Your task to perform on an android device: open chrome privacy settings Image 0: 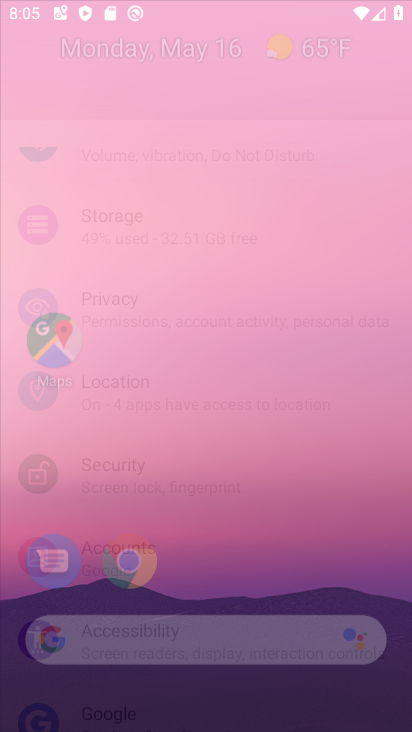
Step 0: click (329, 150)
Your task to perform on an android device: open chrome privacy settings Image 1: 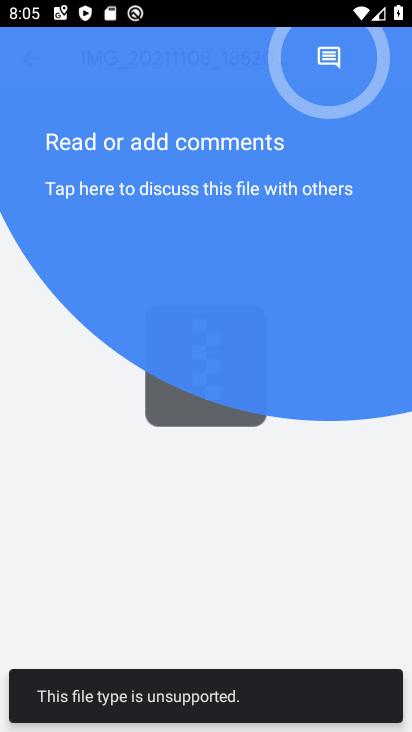
Step 1: press back button
Your task to perform on an android device: open chrome privacy settings Image 2: 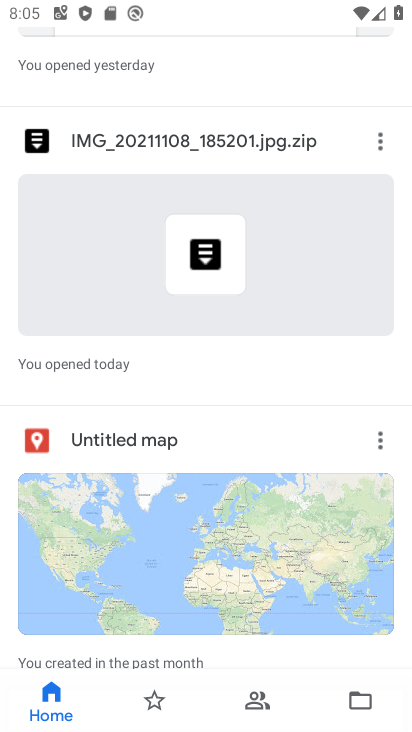
Step 2: drag from (210, 121) to (296, 631)
Your task to perform on an android device: open chrome privacy settings Image 3: 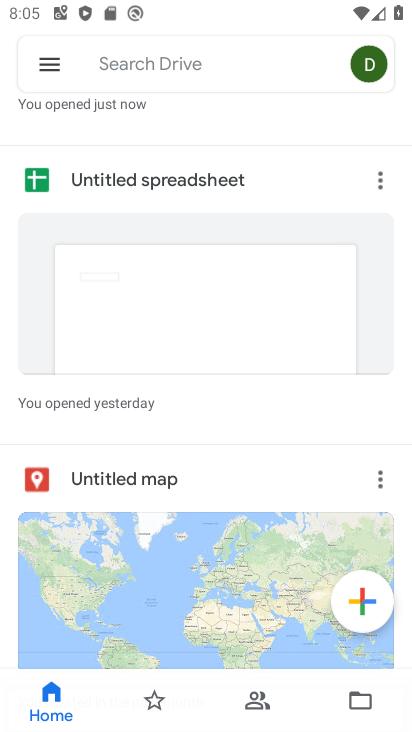
Step 3: press home button
Your task to perform on an android device: open chrome privacy settings Image 4: 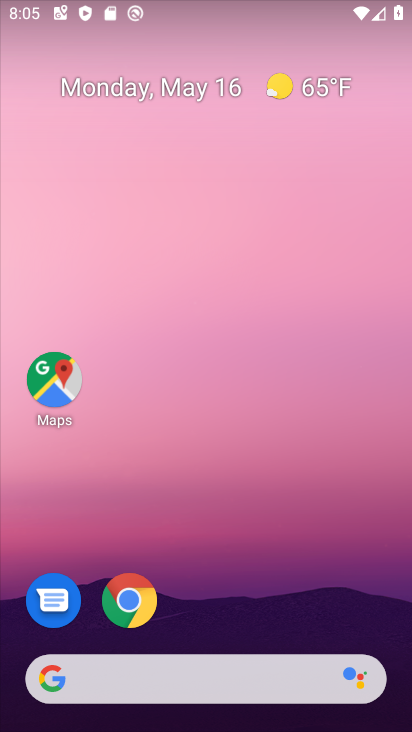
Step 4: click (130, 595)
Your task to perform on an android device: open chrome privacy settings Image 5: 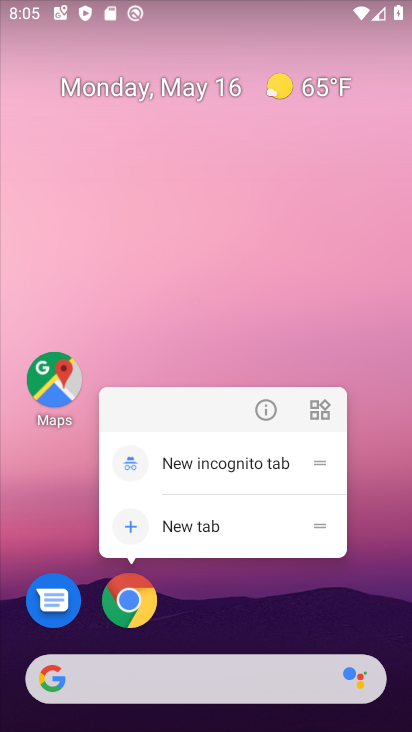
Step 5: click (274, 402)
Your task to perform on an android device: open chrome privacy settings Image 6: 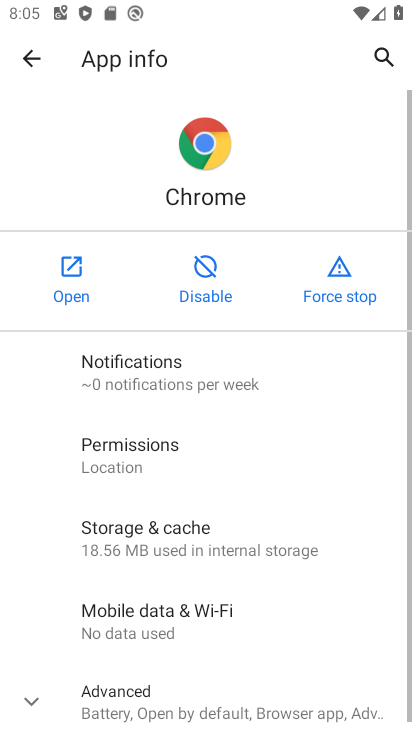
Step 6: click (90, 278)
Your task to perform on an android device: open chrome privacy settings Image 7: 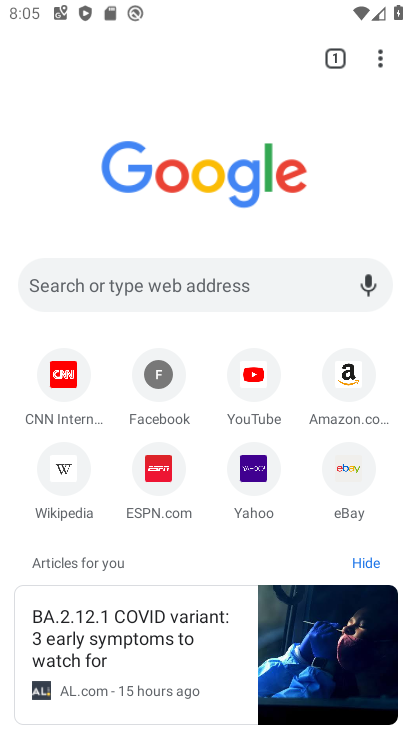
Step 7: click (375, 52)
Your task to perform on an android device: open chrome privacy settings Image 8: 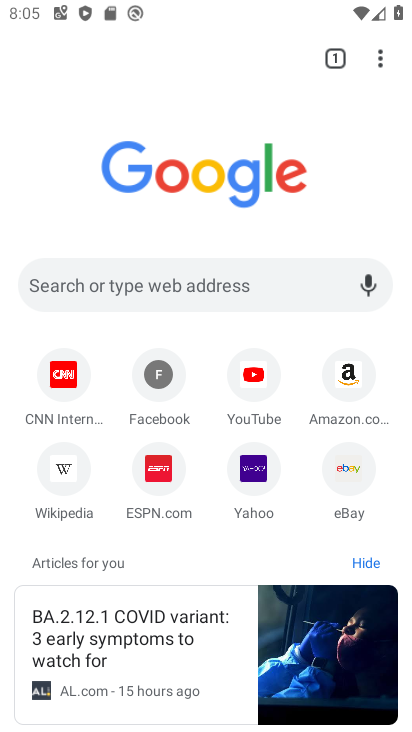
Step 8: click (383, 45)
Your task to perform on an android device: open chrome privacy settings Image 9: 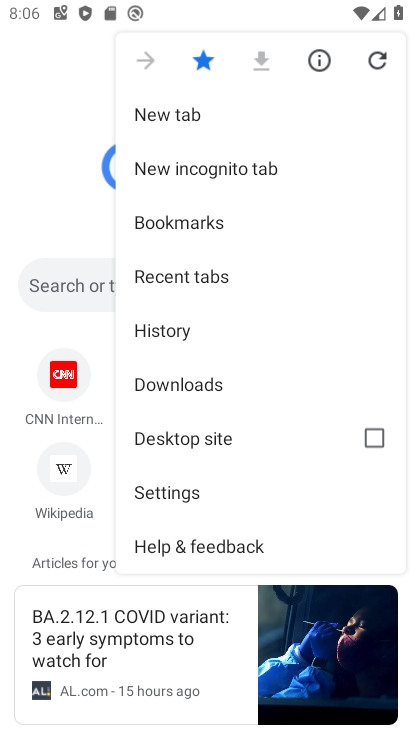
Step 9: click (202, 483)
Your task to perform on an android device: open chrome privacy settings Image 10: 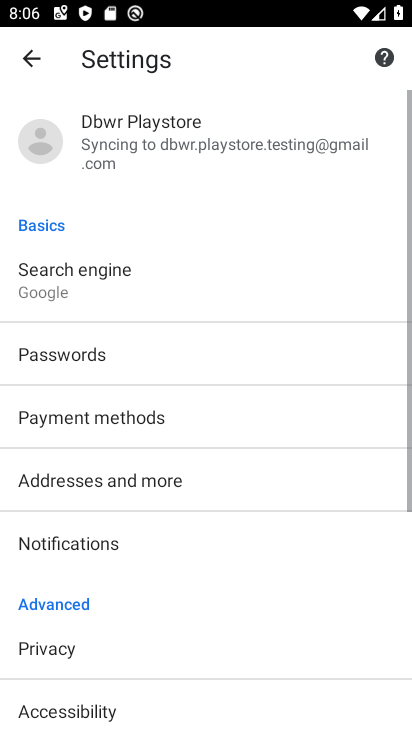
Step 10: drag from (151, 652) to (243, 225)
Your task to perform on an android device: open chrome privacy settings Image 11: 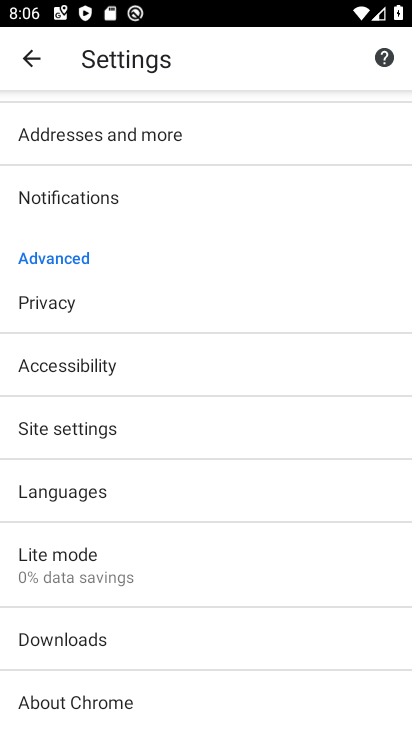
Step 11: drag from (247, 646) to (271, 331)
Your task to perform on an android device: open chrome privacy settings Image 12: 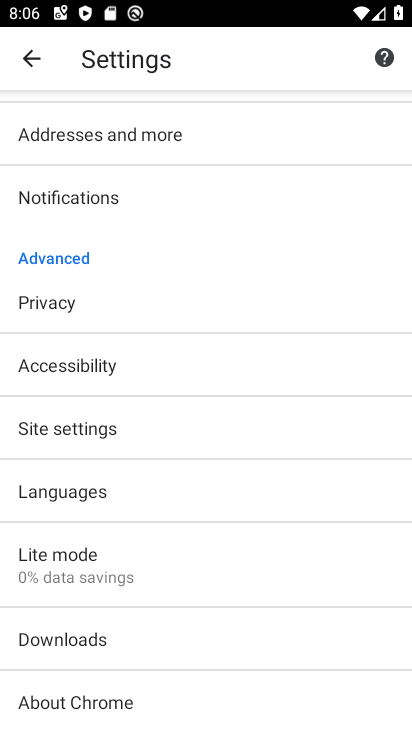
Step 12: click (98, 313)
Your task to perform on an android device: open chrome privacy settings Image 13: 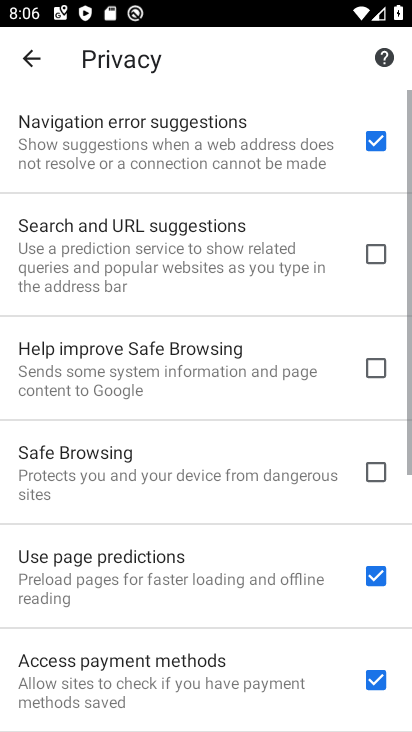
Step 13: task complete